Your task to perform on an android device: Check the weather Image 0: 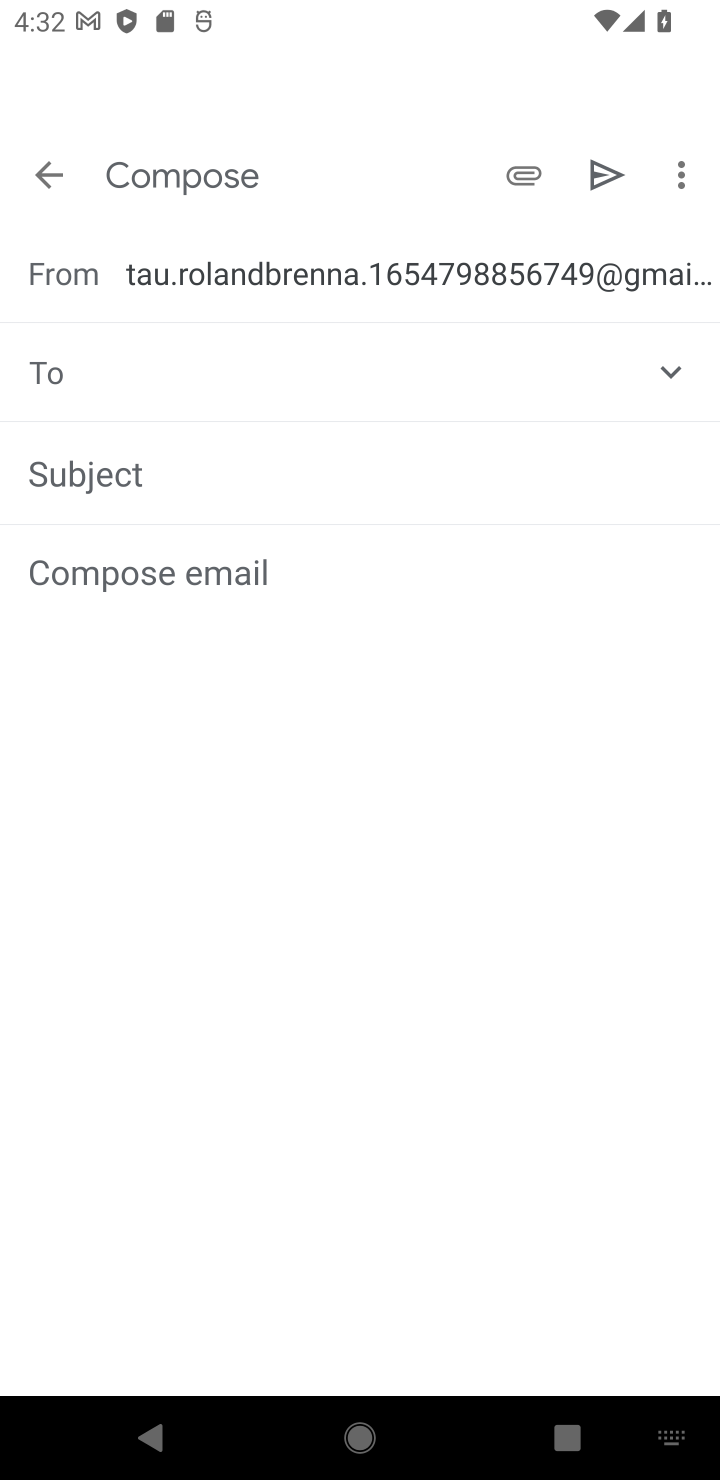
Step 0: press home button
Your task to perform on an android device: Check the weather Image 1: 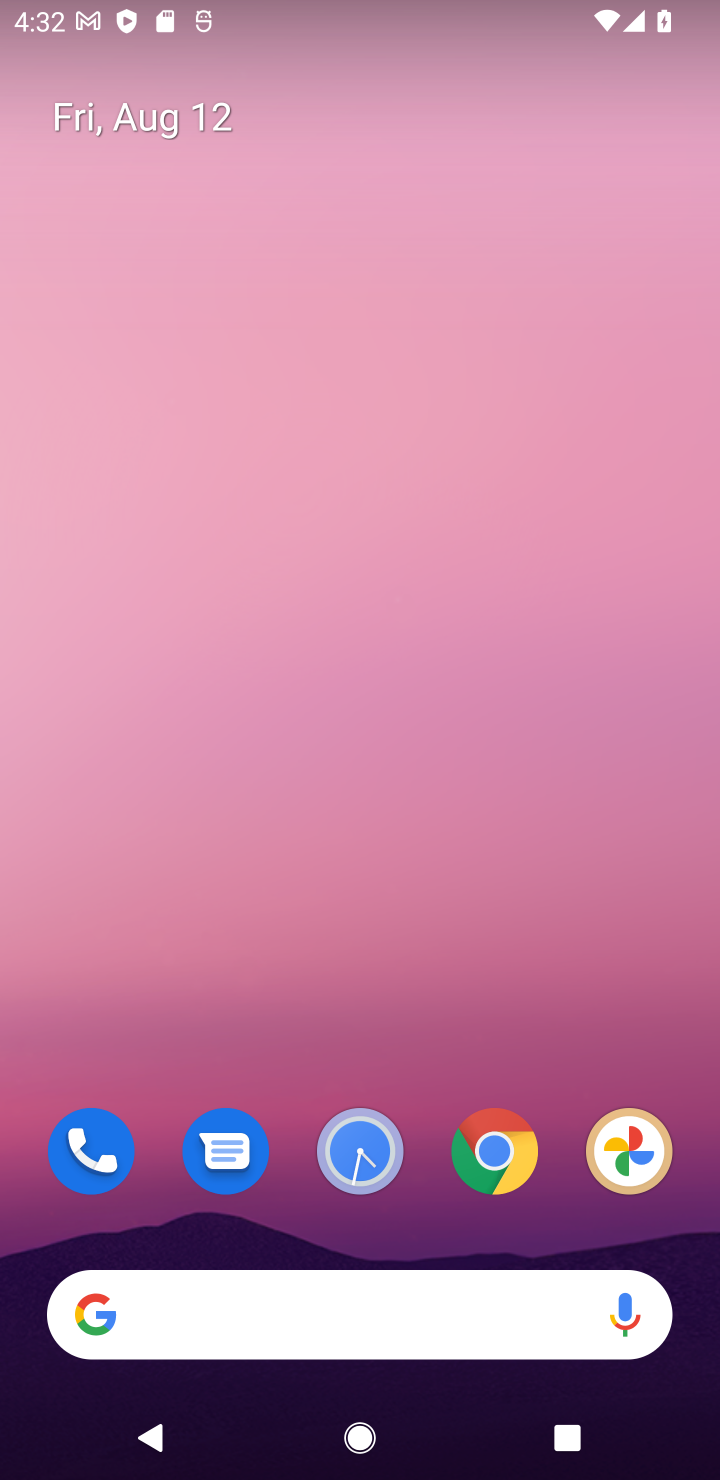
Step 1: click (592, 74)
Your task to perform on an android device: Check the weather Image 2: 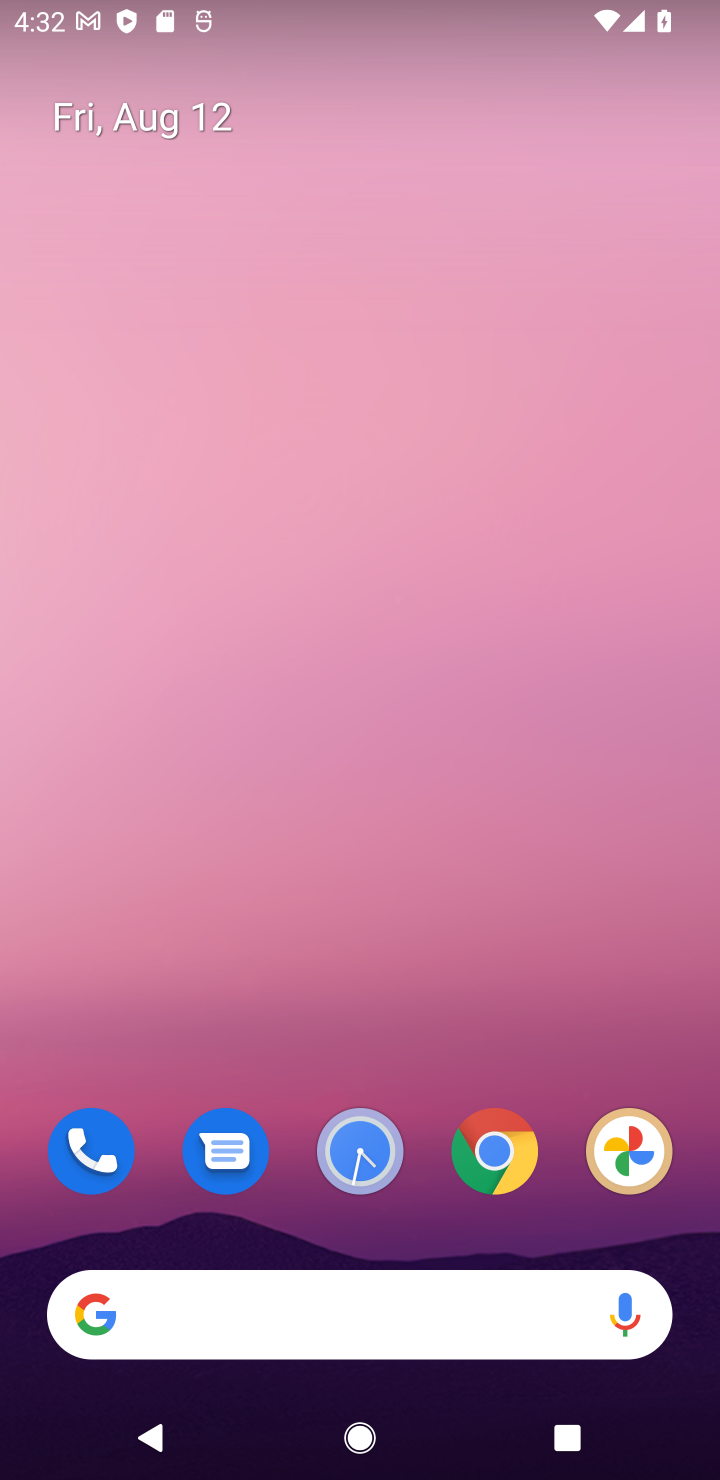
Step 2: drag from (428, 1043) to (608, 190)
Your task to perform on an android device: Check the weather Image 3: 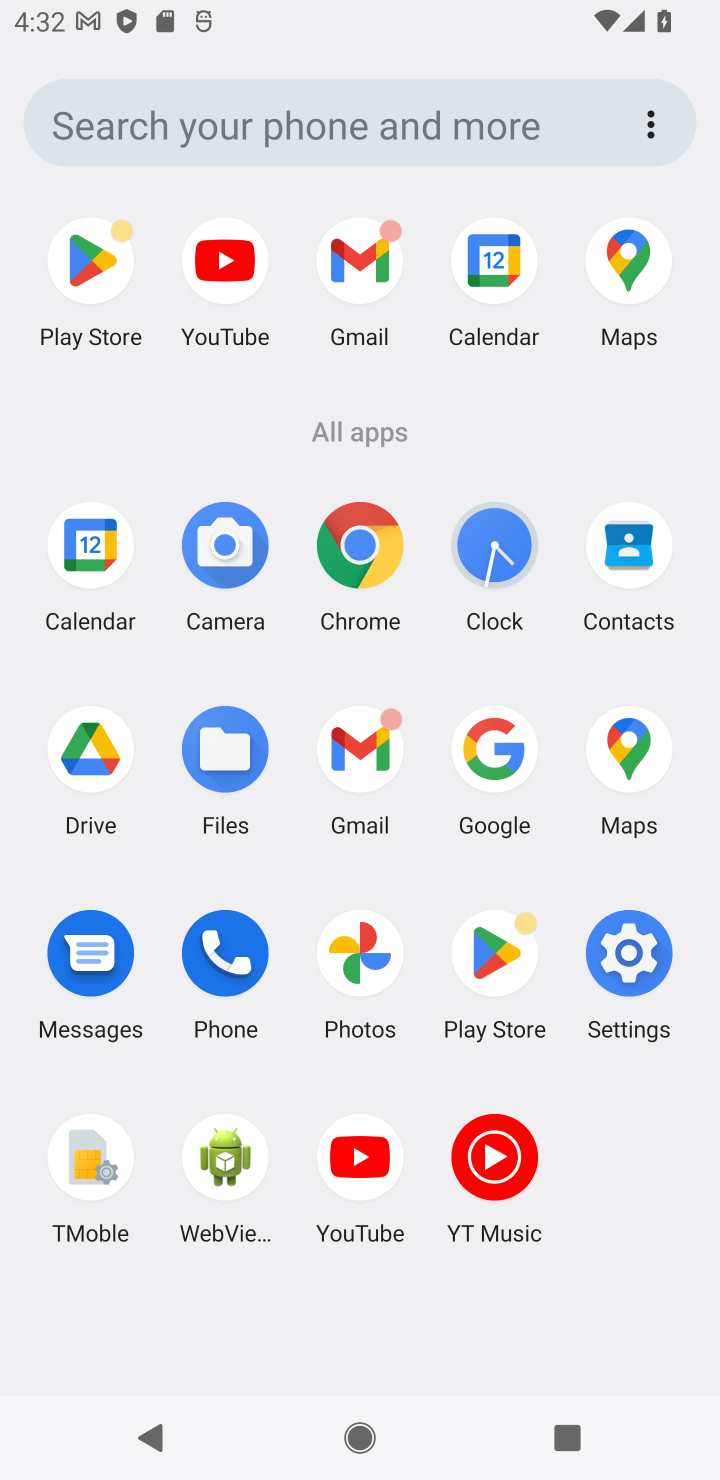
Step 3: click (361, 549)
Your task to perform on an android device: Check the weather Image 4: 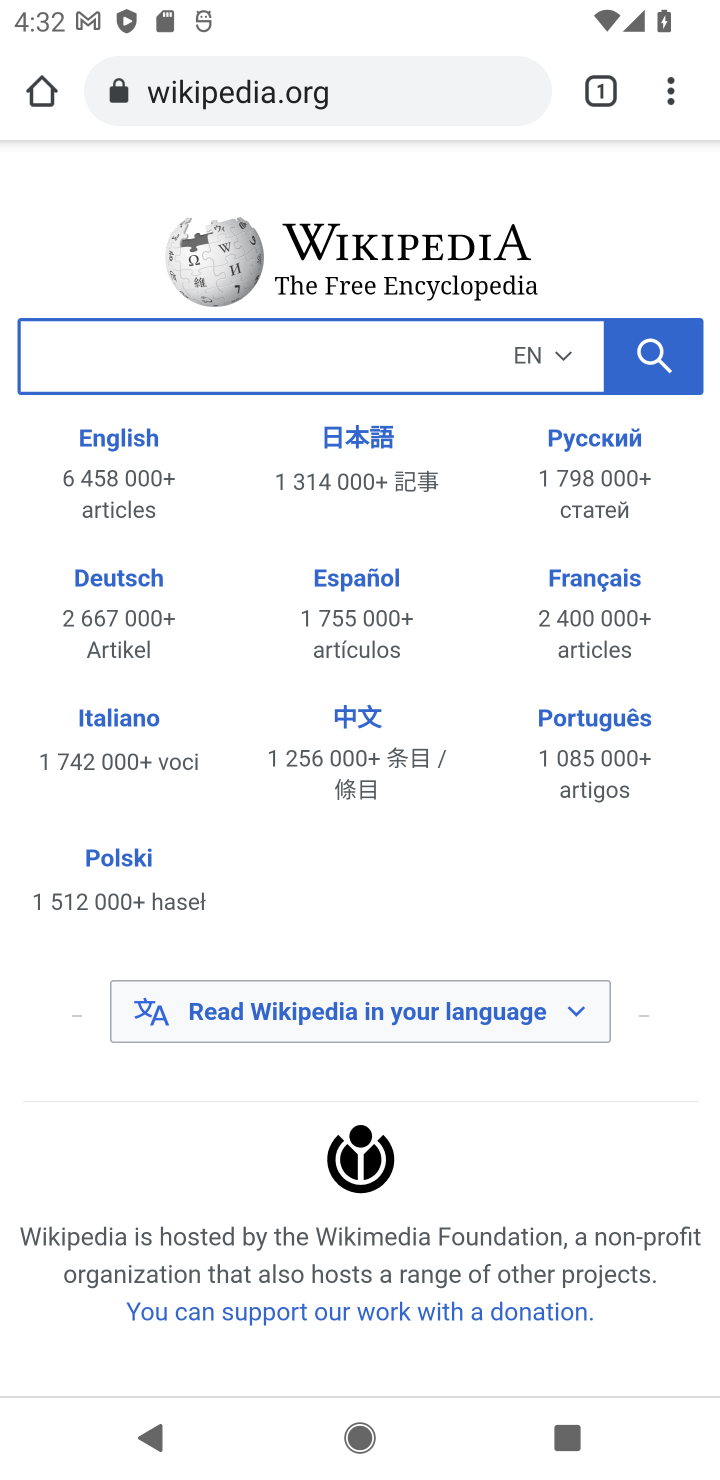
Step 4: click (393, 83)
Your task to perform on an android device: Check the weather Image 5: 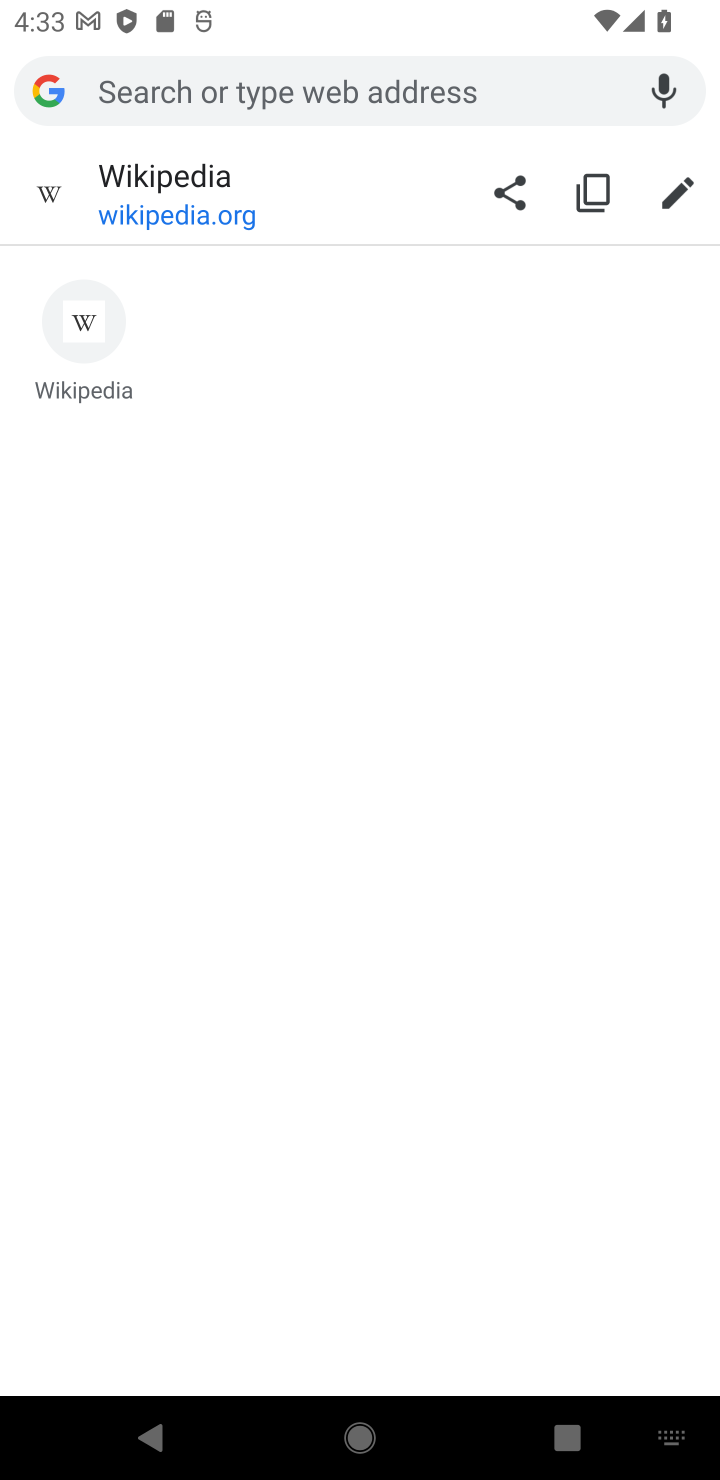
Step 5: type "weather"
Your task to perform on an android device: Check the weather Image 6: 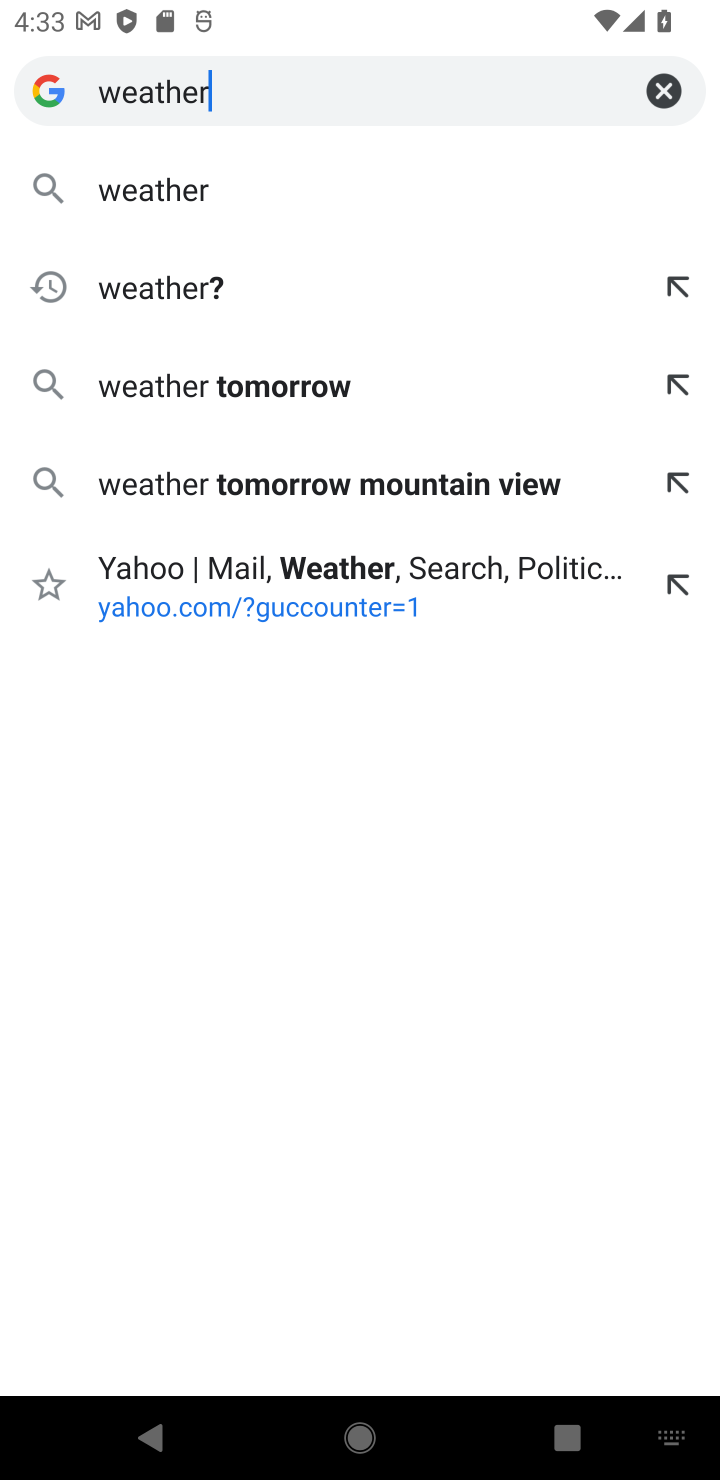
Step 6: click (157, 214)
Your task to perform on an android device: Check the weather Image 7: 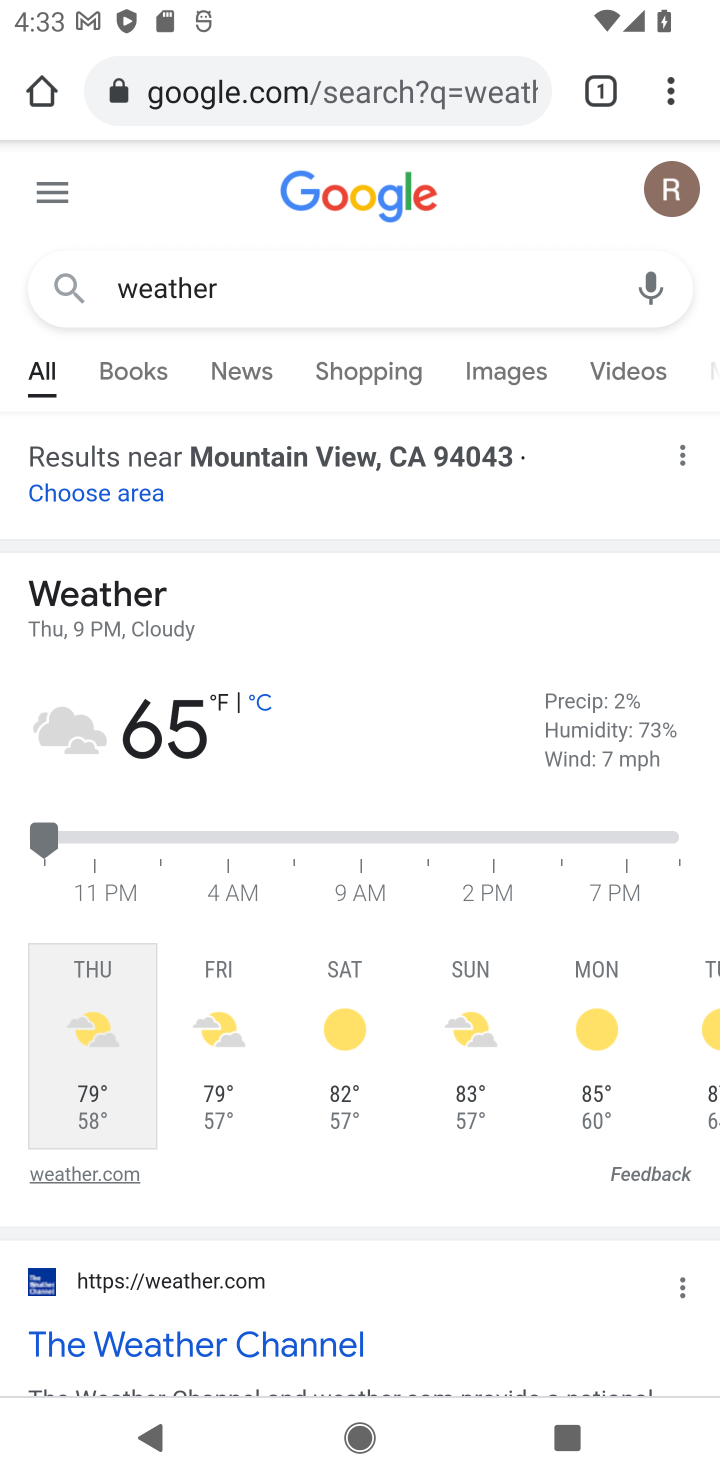
Step 7: task complete